Your task to perform on an android device: Go to calendar. Show me events next week Image 0: 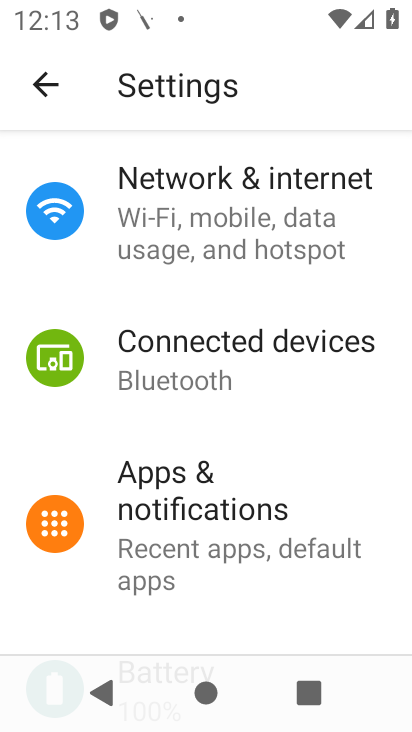
Step 0: press home button
Your task to perform on an android device: Go to calendar. Show me events next week Image 1: 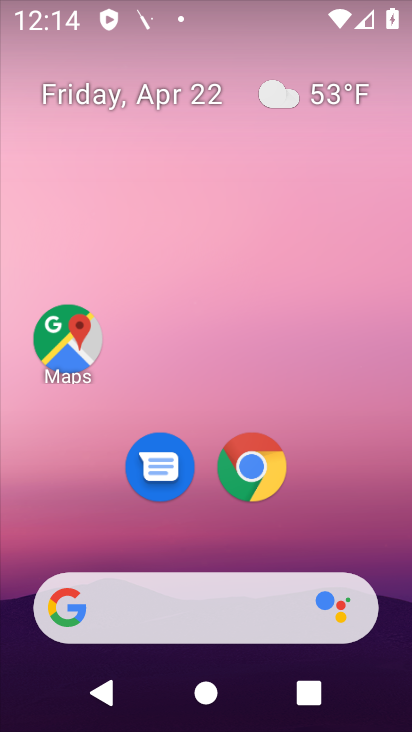
Step 1: drag from (386, 573) to (362, 95)
Your task to perform on an android device: Go to calendar. Show me events next week Image 2: 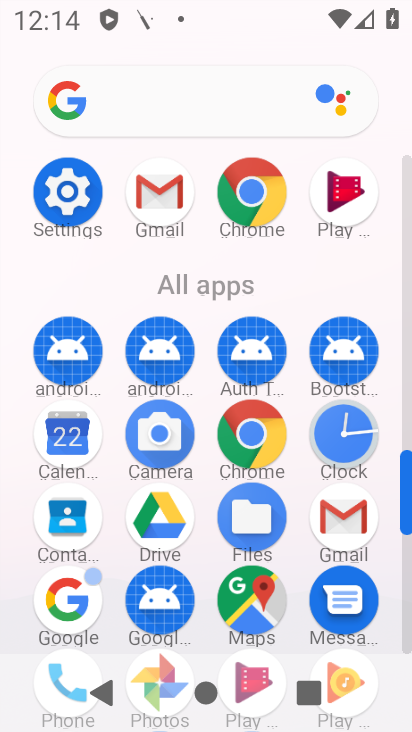
Step 2: click (406, 643)
Your task to perform on an android device: Go to calendar. Show me events next week Image 3: 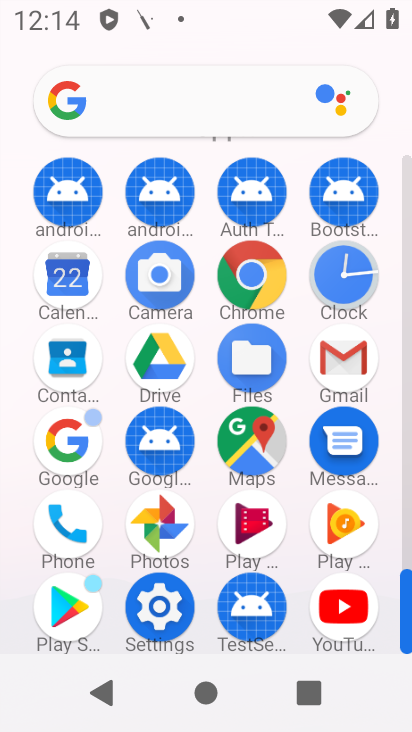
Step 3: click (59, 272)
Your task to perform on an android device: Go to calendar. Show me events next week Image 4: 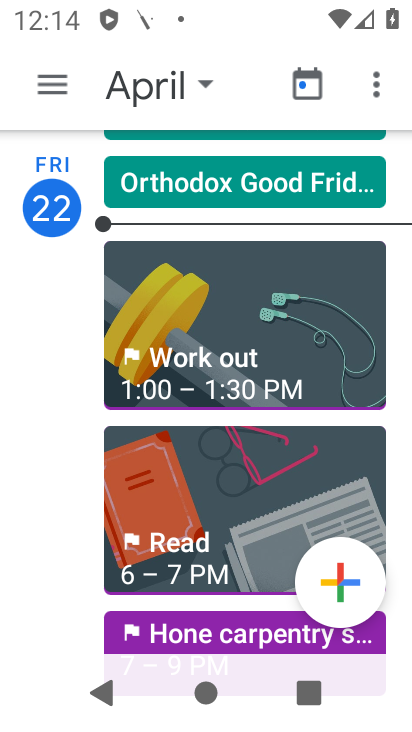
Step 4: click (54, 86)
Your task to perform on an android device: Go to calendar. Show me events next week Image 5: 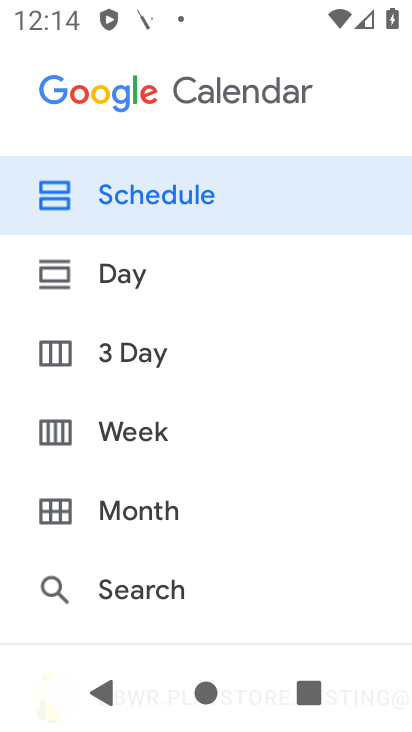
Step 5: click (145, 420)
Your task to perform on an android device: Go to calendar. Show me events next week Image 6: 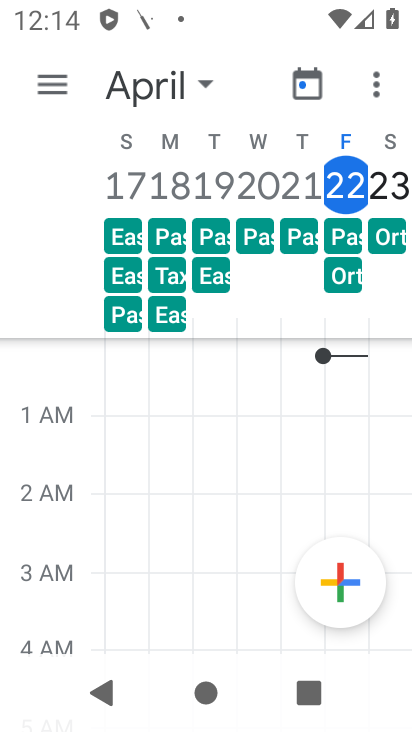
Step 6: click (191, 87)
Your task to perform on an android device: Go to calendar. Show me events next week Image 7: 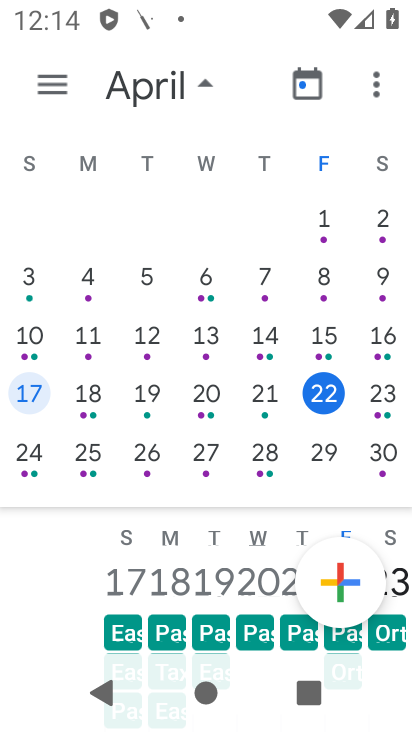
Step 7: click (28, 454)
Your task to perform on an android device: Go to calendar. Show me events next week Image 8: 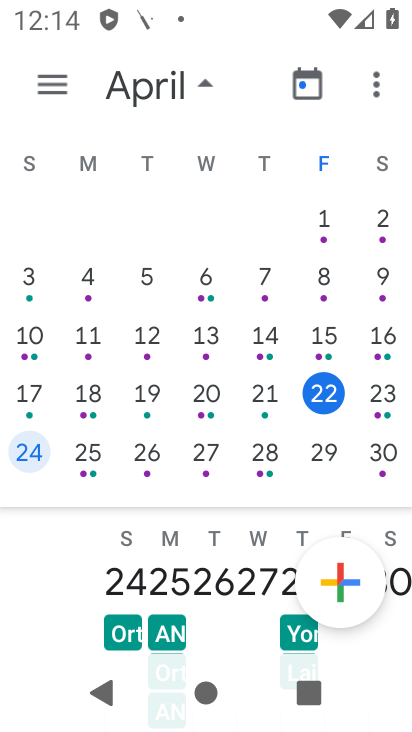
Step 8: task complete